Your task to perform on an android device: change the clock display to analog Image 0: 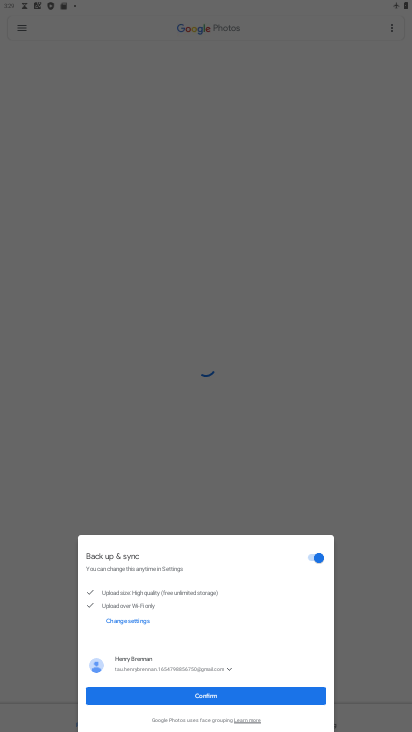
Step 0: press home button
Your task to perform on an android device: change the clock display to analog Image 1: 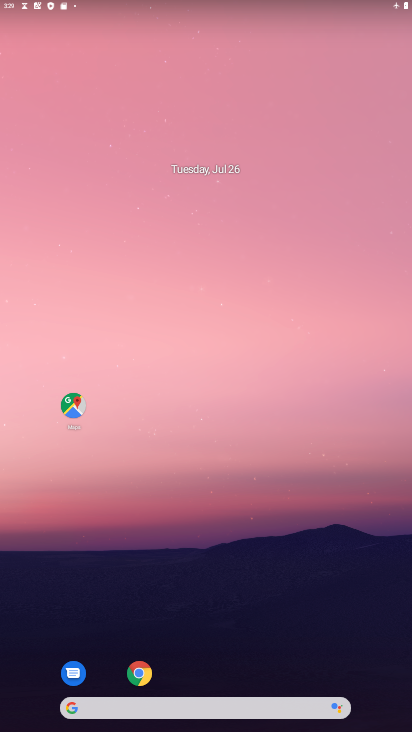
Step 1: drag from (180, 700) to (293, 2)
Your task to perform on an android device: change the clock display to analog Image 2: 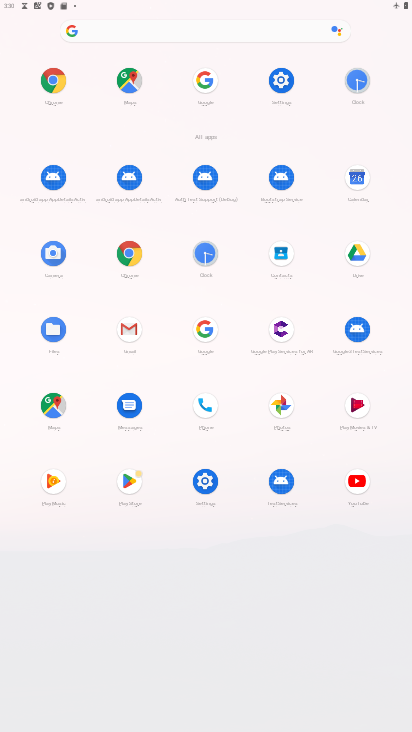
Step 2: click (358, 79)
Your task to perform on an android device: change the clock display to analog Image 3: 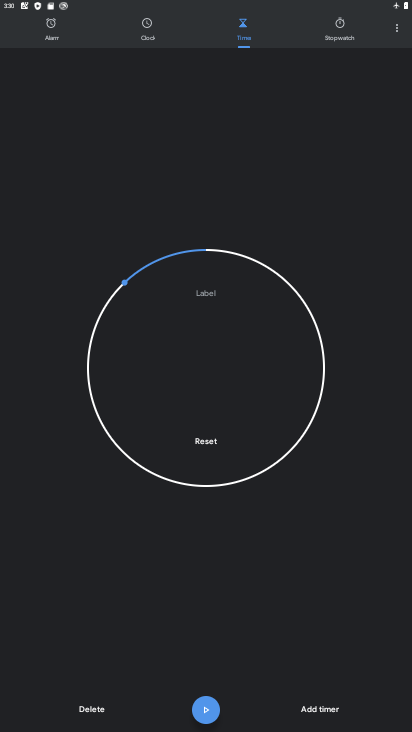
Step 3: click (398, 29)
Your task to perform on an android device: change the clock display to analog Image 4: 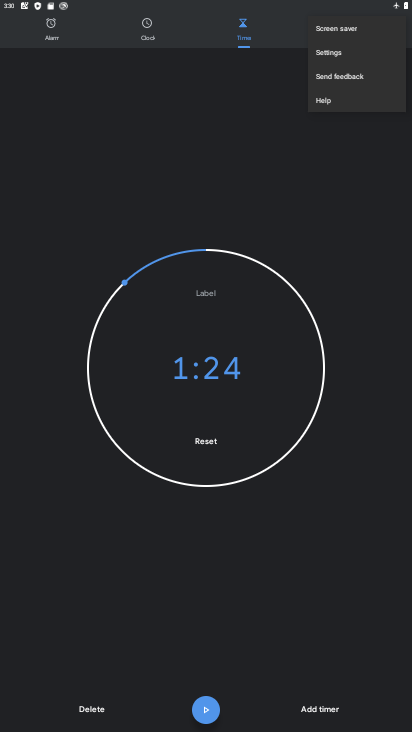
Step 4: click (337, 53)
Your task to perform on an android device: change the clock display to analog Image 5: 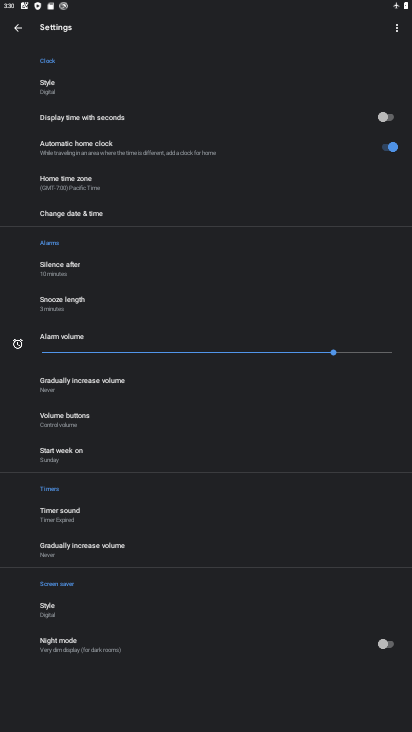
Step 5: click (53, 92)
Your task to perform on an android device: change the clock display to analog Image 6: 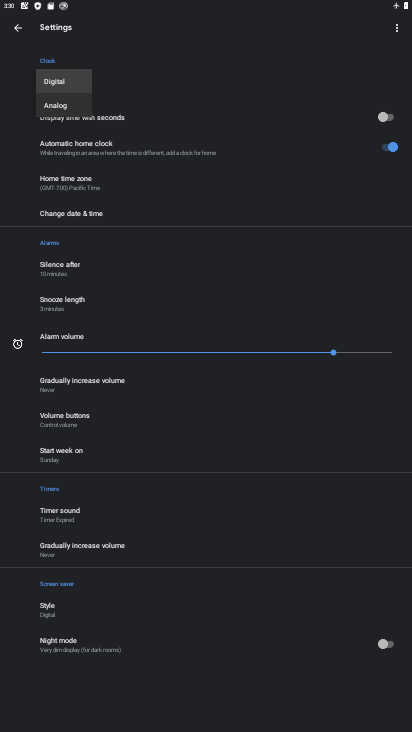
Step 6: click (62, 109)
Your task to perform on an android device: change the clock display to analog Image 7: 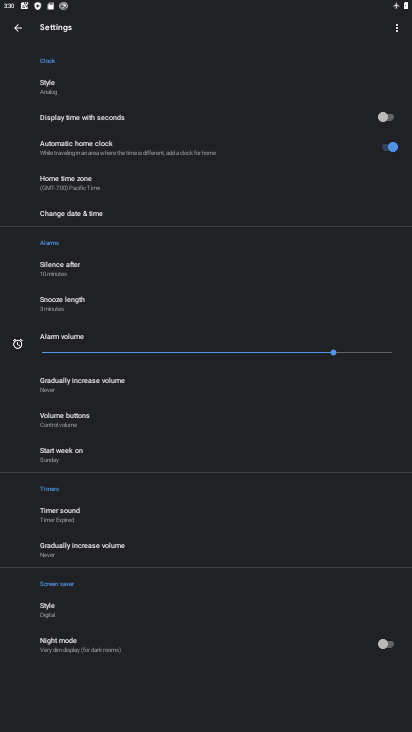
Step 7: task complete